Your task to perform on an android device: What is the capital of India? Image 0: 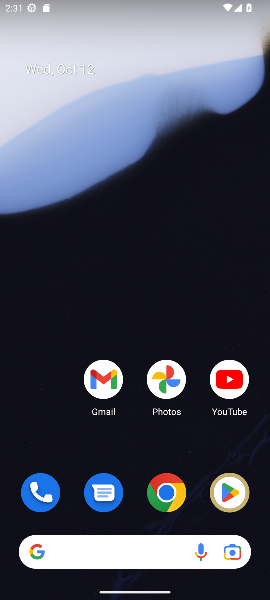
Step 0: click (158, 495)
Your task to perform on an android device: What is the capital of India? Image 1: 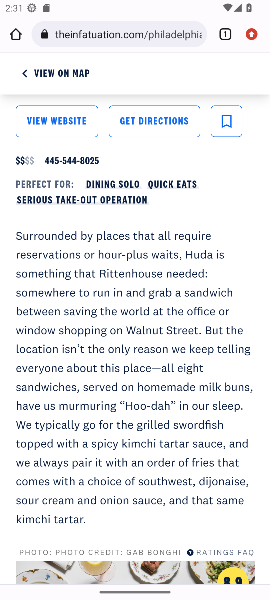
Step 1: click (91, 42)
Your task to perform on an android device: What is the capital of India? Image 2: 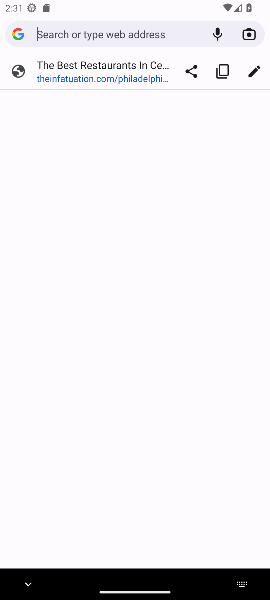
Step 2: type "capital of india"
Your task to perform on an android device: What is the capital of India? Image 3: 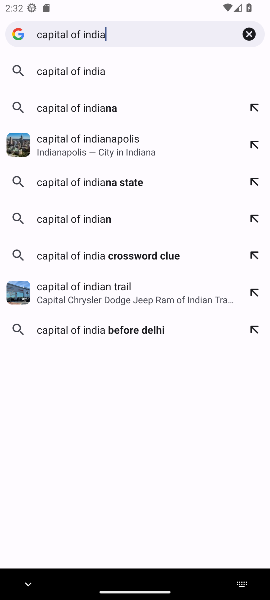
Step 3: click (51, 73)
Your task to perform on an android device: What is the capital of India? Image 4: 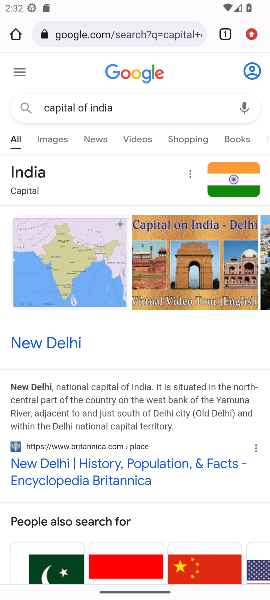
Step 4: click (32, 344)
Your task to perform on an android device: What is the capital of India? Image 5: 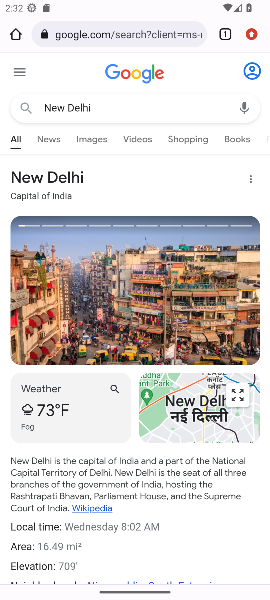
Step 5: task complete